Your task to perform on an android device: Open the map Image 0: 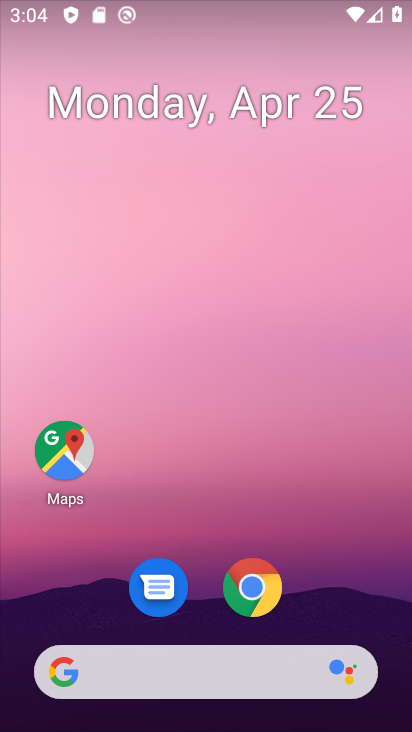
Step 0: click (62, 447)
Your task to perform on an android device: Open the map Image 1: 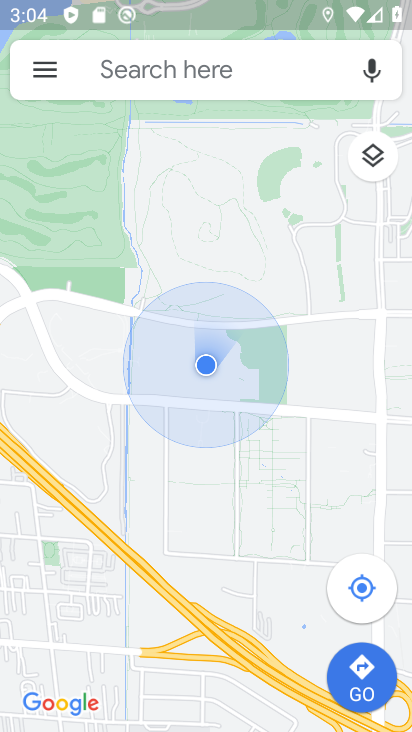
Step 1: task complete